Your task to perform on an android device: find snoozed emails in the gmail app Image 0: 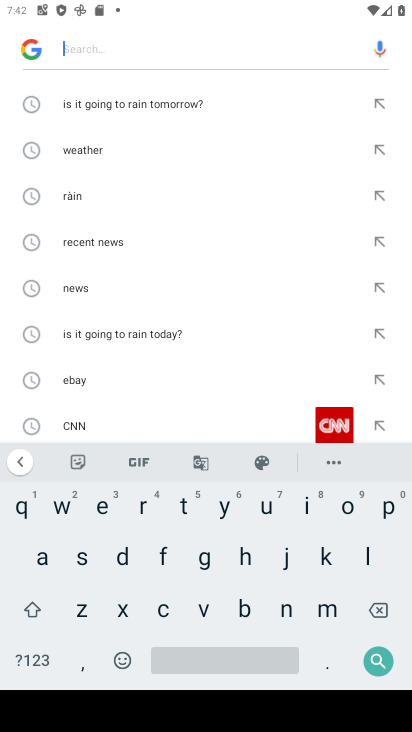
Step 0: press home button
Your task to perform on an android device: find snoozed emails in the gmail app Image 1: 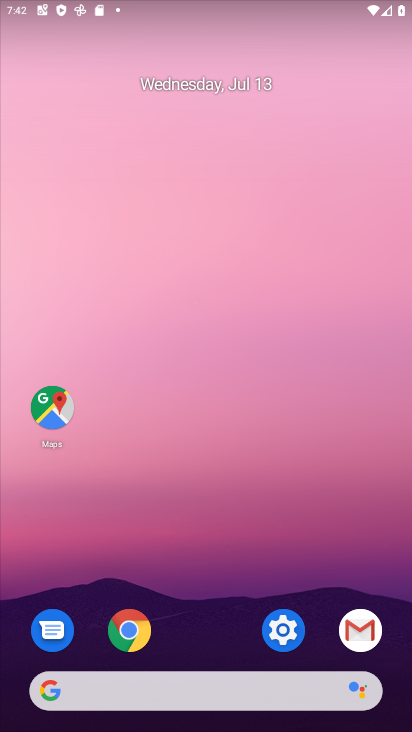
Step 1: click (368, 622)
Your task to perform on an android device: find snoozed emails in the gmail app Image 2: 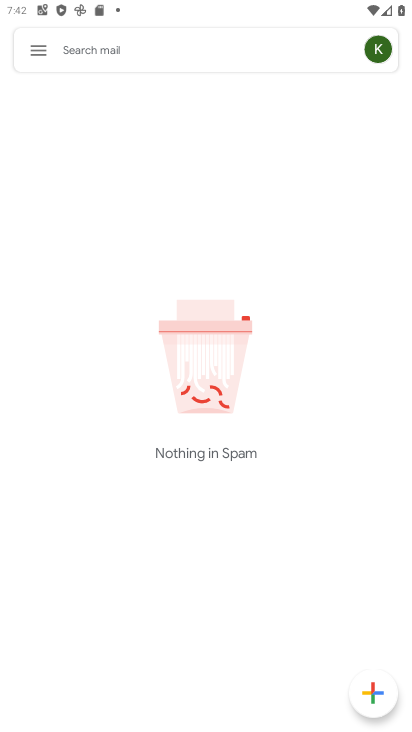
Step 2: click (43, 34)
Your task to perform on an android device: find snoozed emails in the gmail app Image 3: 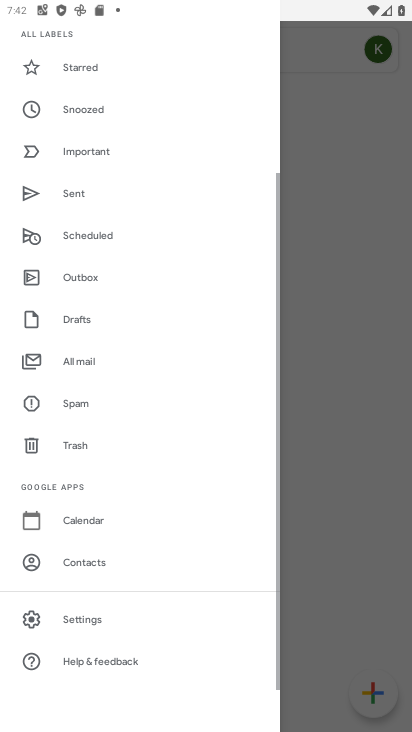
Step 3: click (90, 115)
Your task to perform on an android device: find snoozed emails in the gmail app Image 4: 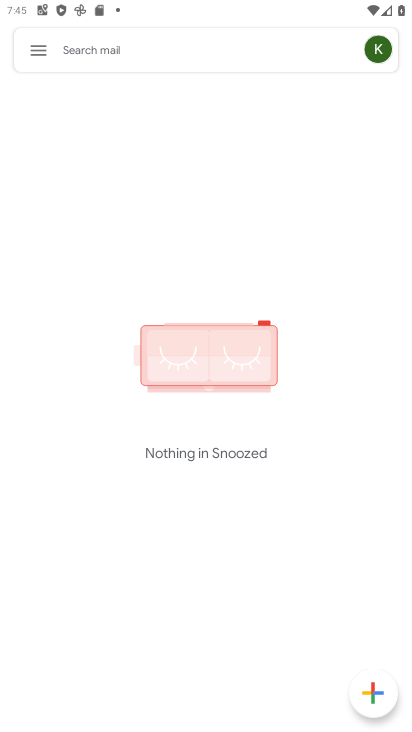
Step 4: task complete